Your task to perform on an android device: change your default location settings in chrome Image 0: 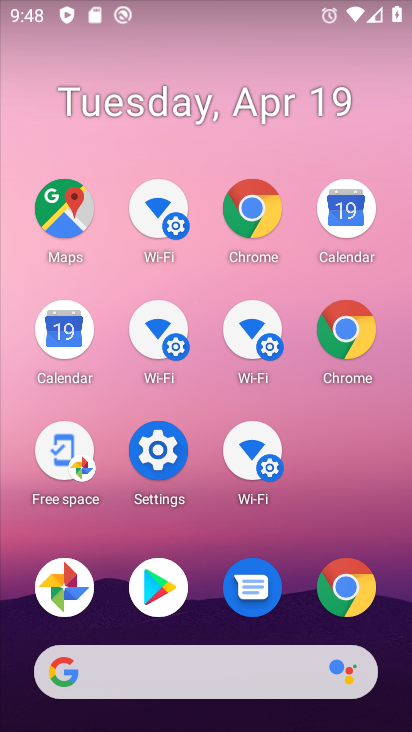
Step 0: click (348, 589)
Your task to perform on an android device: change your default location settings in chrome Image 1: 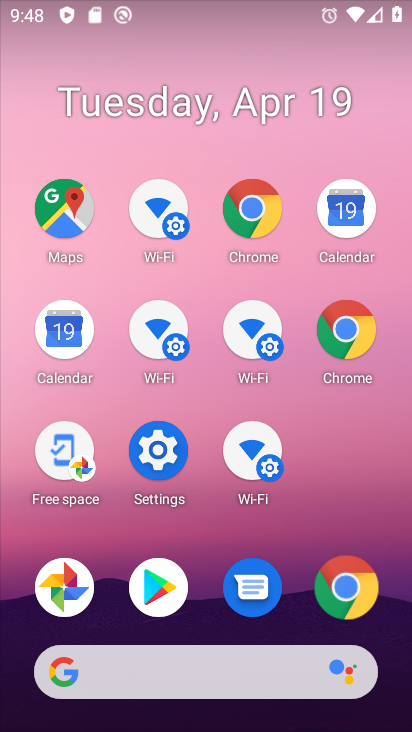
Step 1: click (348, 589)
Your task to perform on an android device: change your default location settings in chrome Image 2: 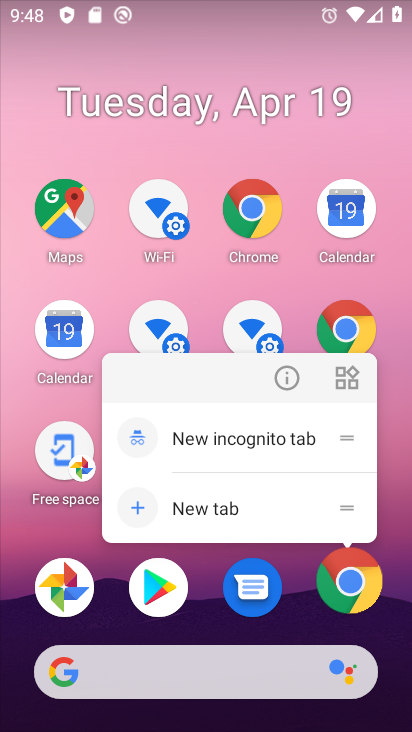
Step 2: drag from (374, 501) to (389, 458)
Your task to perform on an android device: change your default location settings in chrome Image 3: 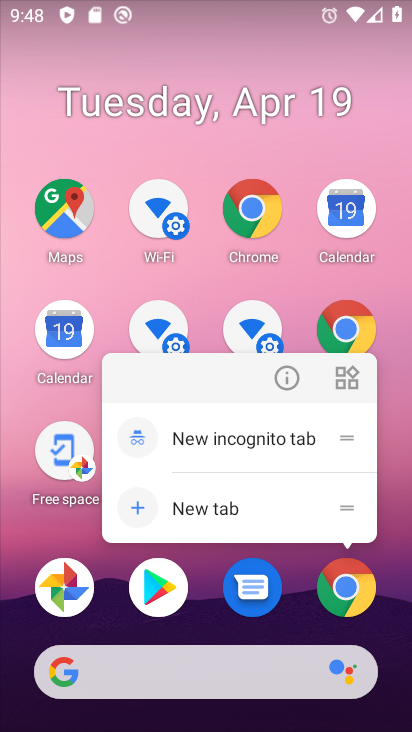
Step 3: click (390, 405)
Your task to perform on an android device: change your default location settings in chrome Image 4: 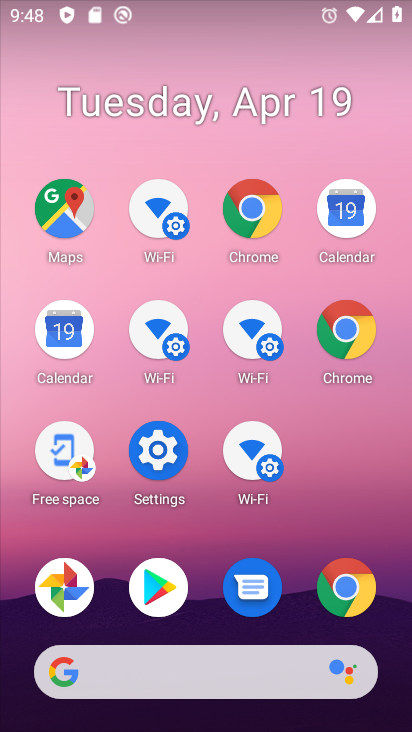
Step 4: drag from (371, 647) to (248, 211)
Your task to perform on an android device: change your default location settings in chrome Image 5: 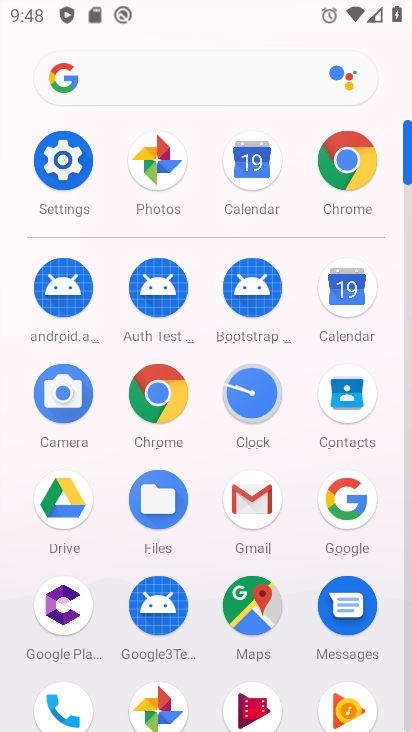
Step 5: click (352, 161)
Your task to perform on an android device: change your default location settings in chrome Image 6: 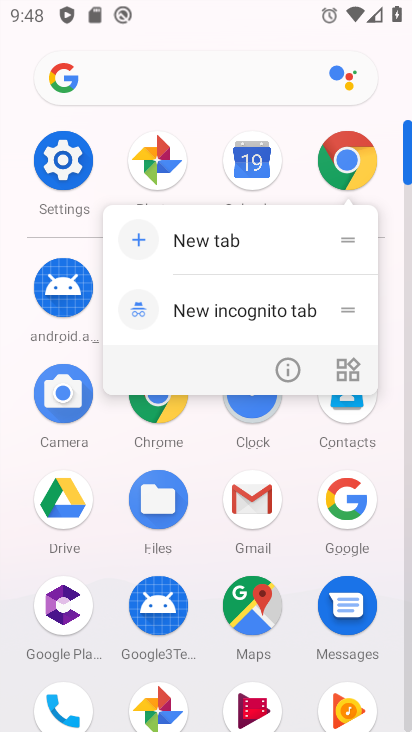
Step 6: click (352, 161)
Your task to perform on an android device: change your default location settings in chrome Image 7: 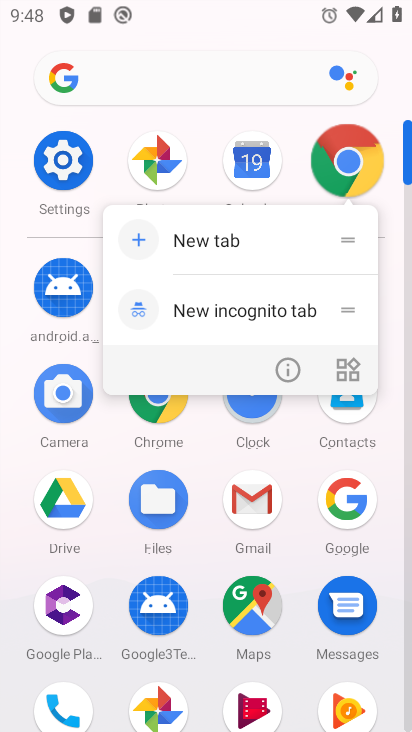
Step 7: click (352, 161)
Your task to perform on an android device: change your default location settings in chrome Image 8: 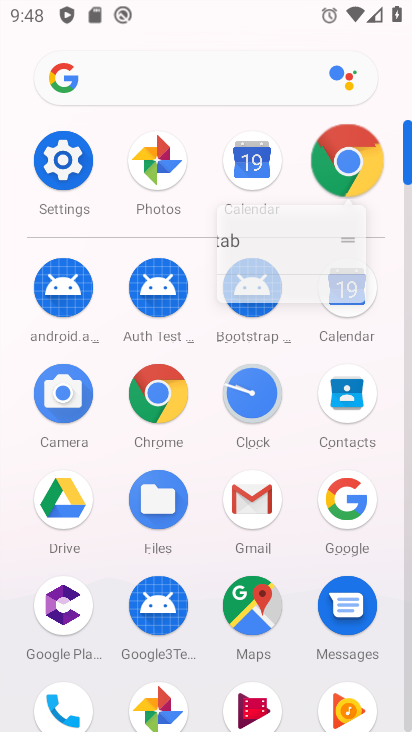
Step 8: click (352, 161)
Your task to perform on an android device: change your default location settings in chrome Image 9: 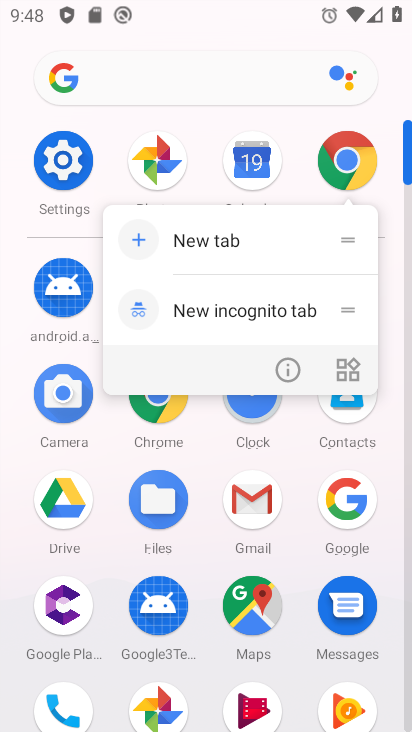
Step 9: click (352, 161)
Your task to perform on an android device: change your default location settings in chrome Image 10: 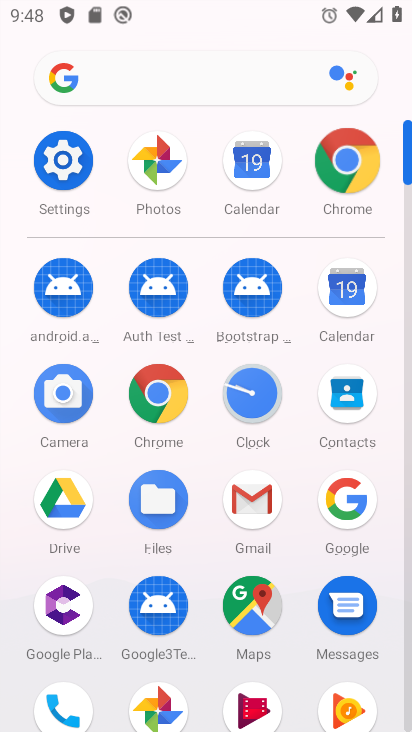
Step 10: click (352, 161)
Your task to perform on an android device: change your default location settings in chrome Image 11: 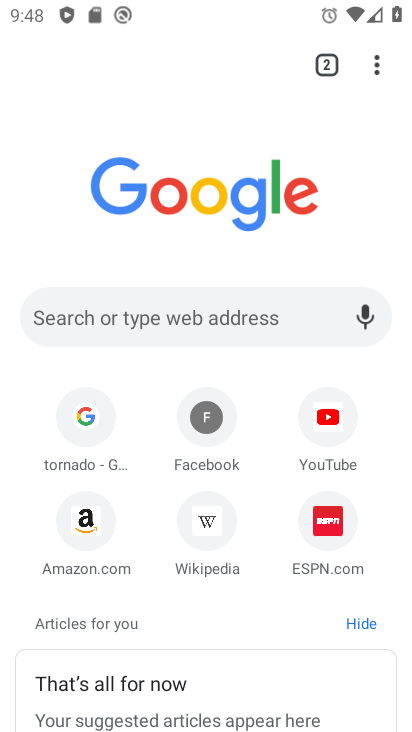
Step 11: click (372, 64)
Your task to perform on an android device: change your default location settings in chrome Image 12: 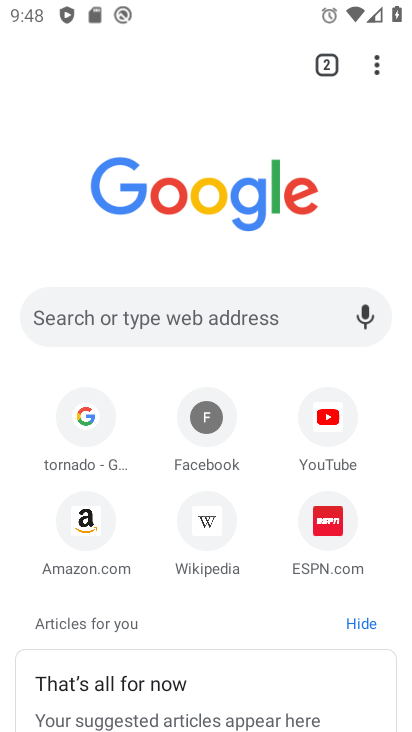
Step 12: click (376, 59)
Your task to perform on an android device: change your default location settings in chrome Image 13: 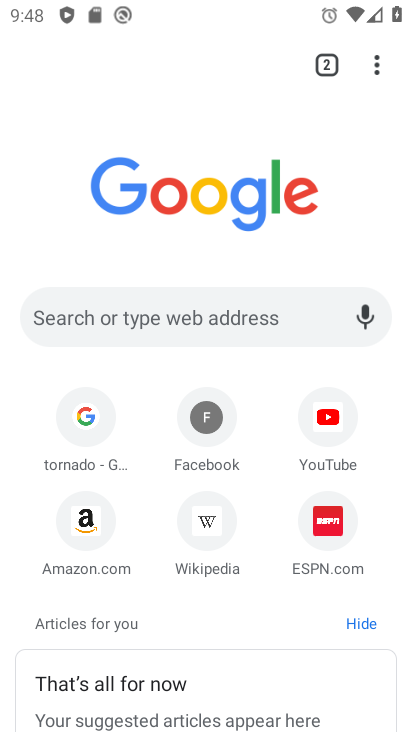
Step 13: click (382, 57)
Your task to perform on an android device: change your default location settings in chrome Image 14: 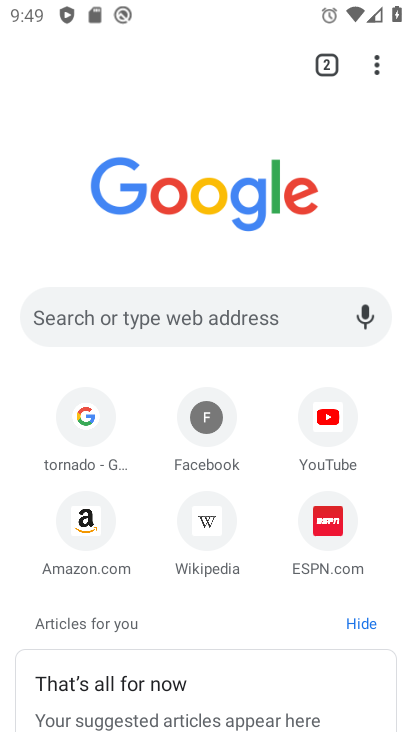
Step 14: drag from (377, 61) to (140, 632)
Your task to perform on an android device: change your default location settings in chrome Image 15: 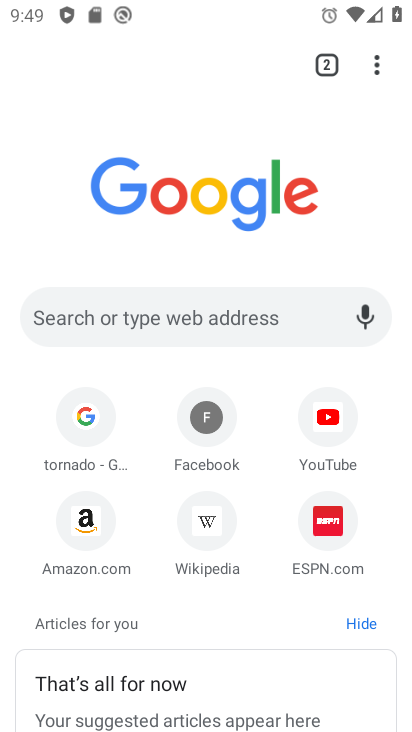
Step 15: click (139, 603)
Your task to perform on an android device: change your default location settings in chrome Image 16: 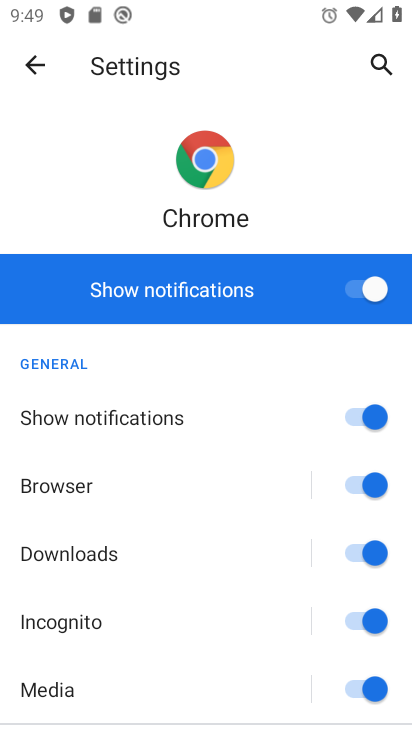
Step 16: click (36, 62)
Your task to perform on an android device: change your default location settings in chrome Image 17: 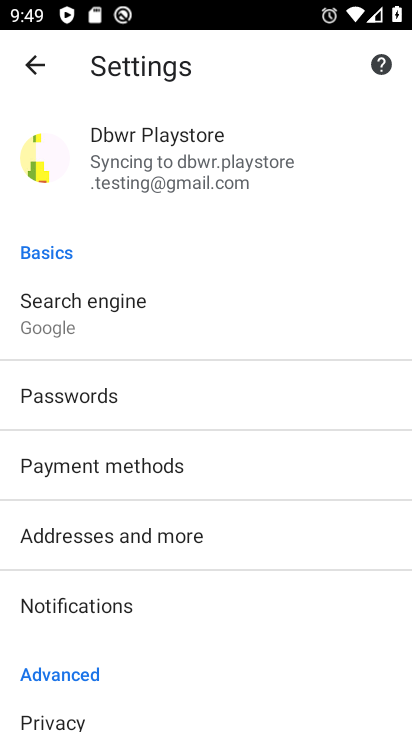
Step 17: click (158, 245)
Your task to perform on an android device: change your default location settings in chrome Image 18: 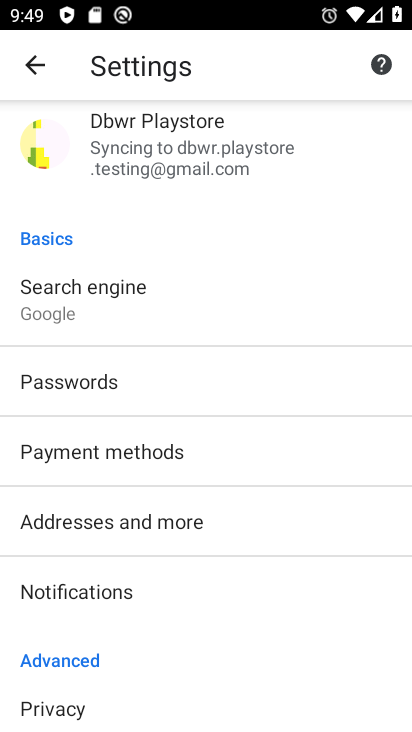
Step 18: drag from (109, 498) to (195, 174)
Your task to perform on an android device: change your default location settings in chrome Image 19: 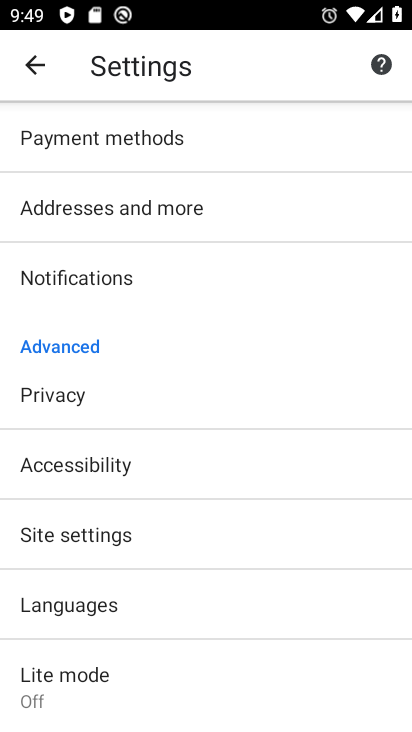
Step 19: click (61, 526)
Your task to perform on an android device: change your default location settings in chrome Image 20: 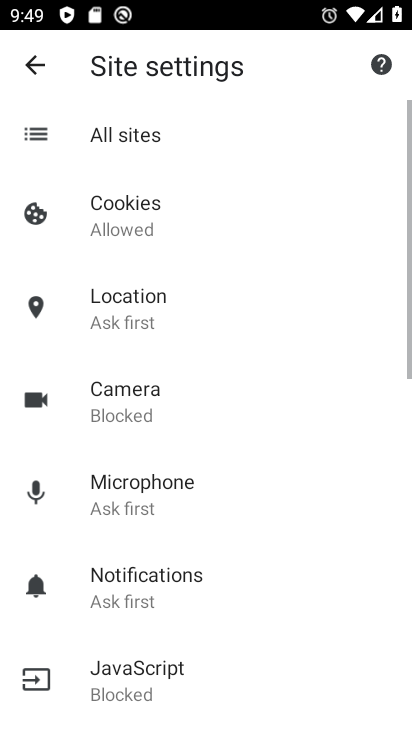
Step 20: click (96, 315)
Your task to perform on an android device: change your default location settings in chrome Image 21: 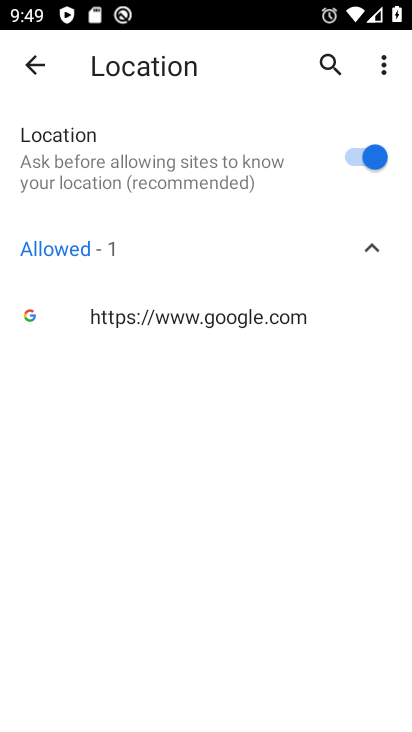
Step 21: click (365, 160)
Your task to perform on an android device: change your default location settings in chrome Image 22: 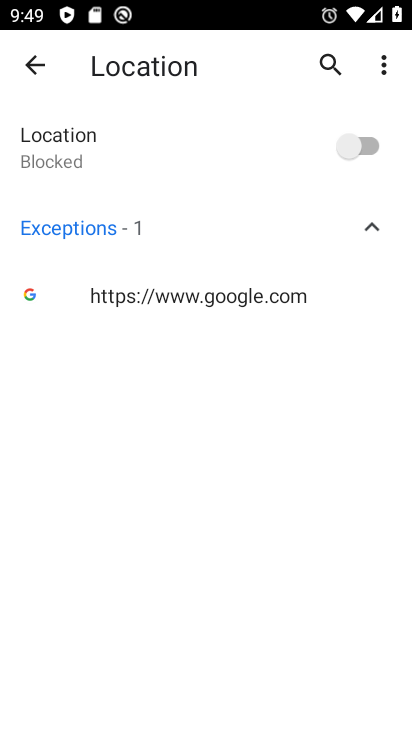
Step 22: press home button
Your task to perform on an android device: change your default location settings in chrome Image 23: 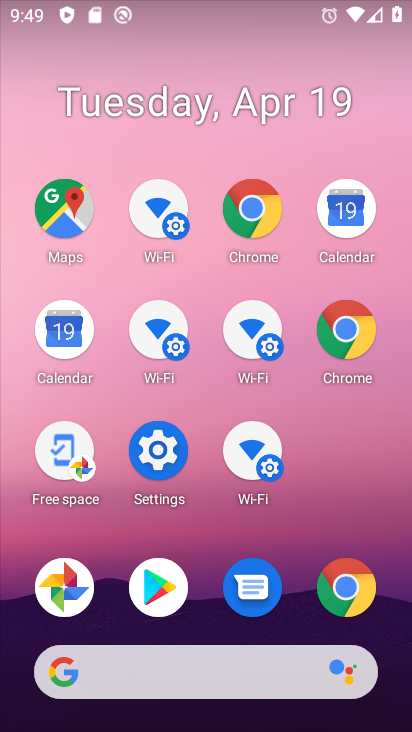
Step 23: click (345, 589)
Your task to perform on an android device: change your default location settings in chrome Image 24: 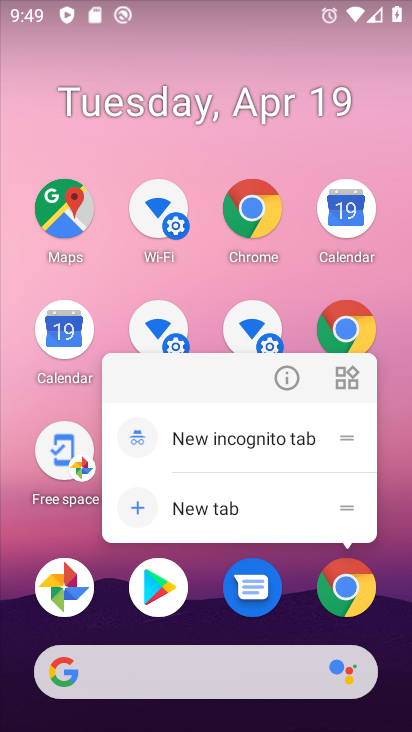
Step 24: click (345, 589)
Your task to perform on an android device: change your default location settings in chrome Image 25: 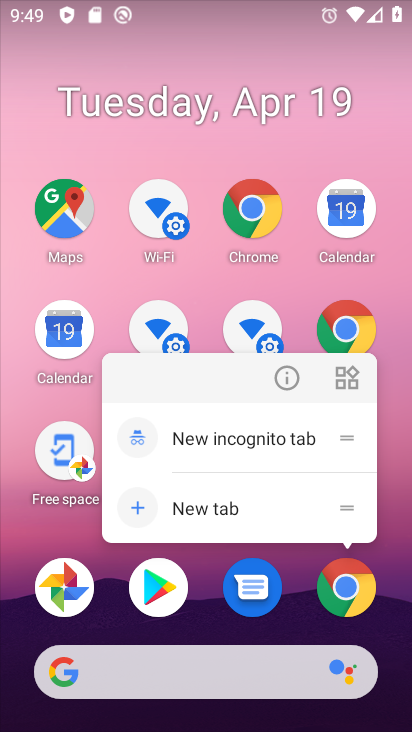
Step 25: click (348, 567)
Your task to perform on an android device: change your default location settings in chrome Image 26: 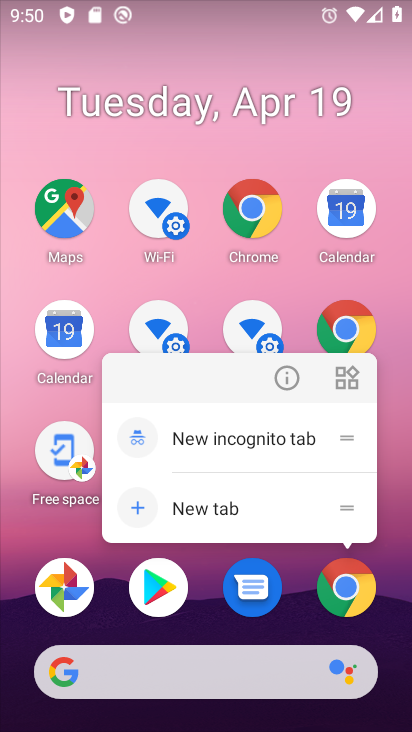
Step 26: click (351, 572)
Your task to perform on an android device: change your default location settings in chrome Image 27: 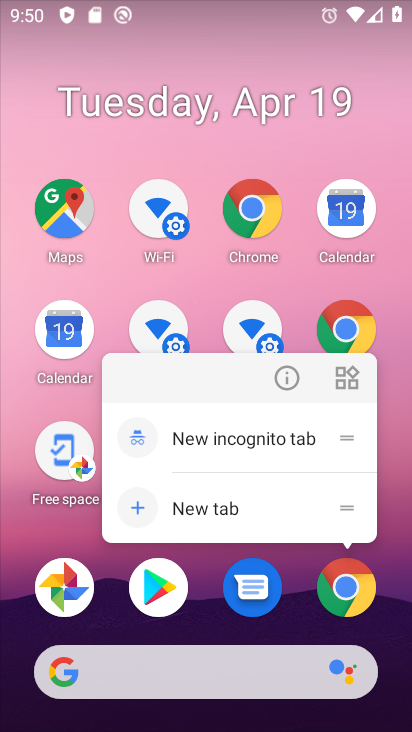
Step 27: click (355, 577)
Your task to perform on an android device: change your default location settings in chrome Image 28: 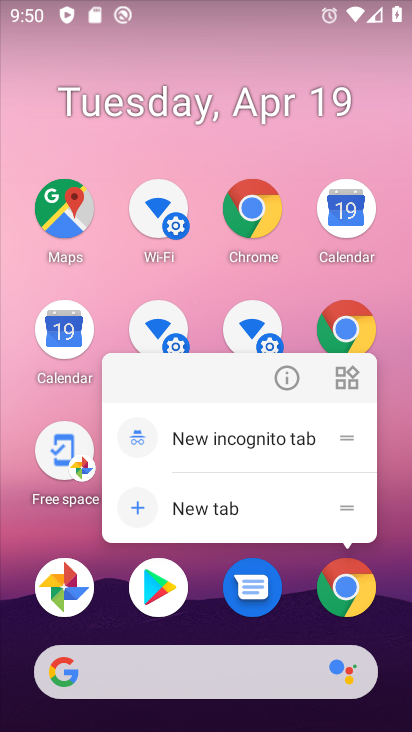
Step 28: click (351, 576)
Your task to perform on an android device: change your default location settings in chrome Image 29: 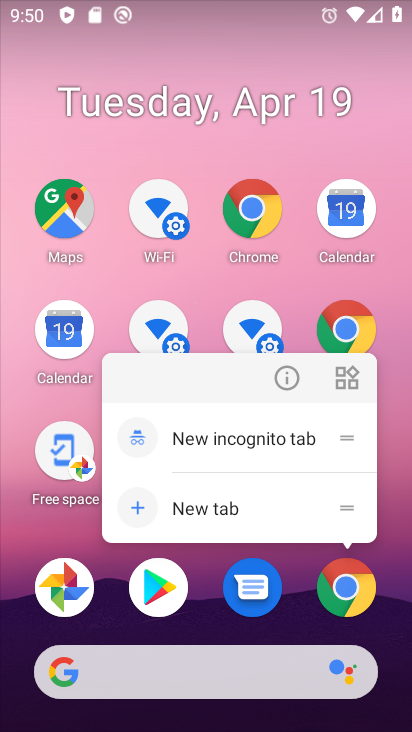
Step 29: click (332, 592)
Your task to perform on an android device: change your default location settings in chrome Image 30: 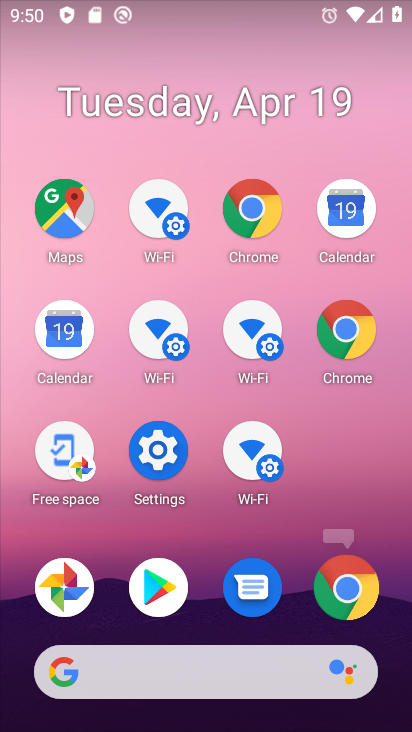
Step 30: click (336, 585)
Your task to perform on an android device: change your default location settings in chrome Image 31: 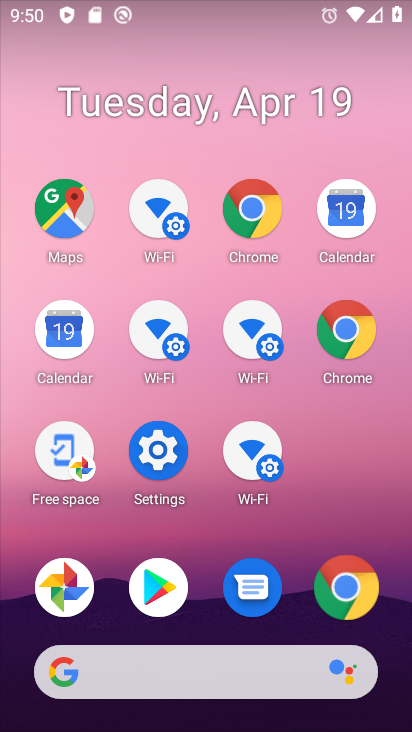
Step 31: click (336, 583)
Your task to perform on an android device: change your default location settings in chrome Image 32: 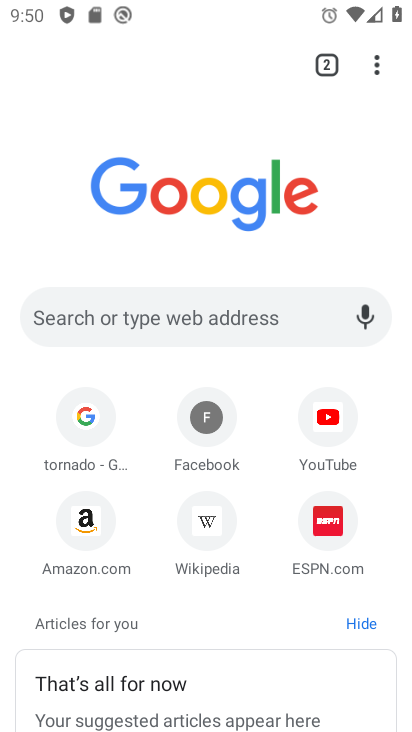
Step 32: drag from (372, 59) to (143, 622)
Your task to perform on an android device: change your default location settings in chrome Image 33: 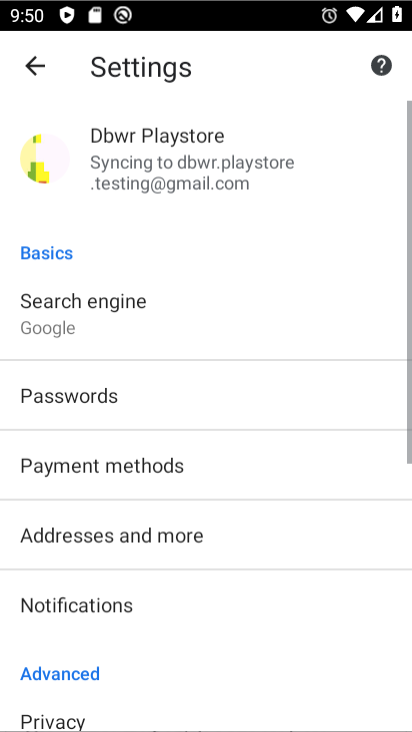
Step 33: click (144, 620)
Your task to perform on an android device: change your default location settings in chrome Image 34: 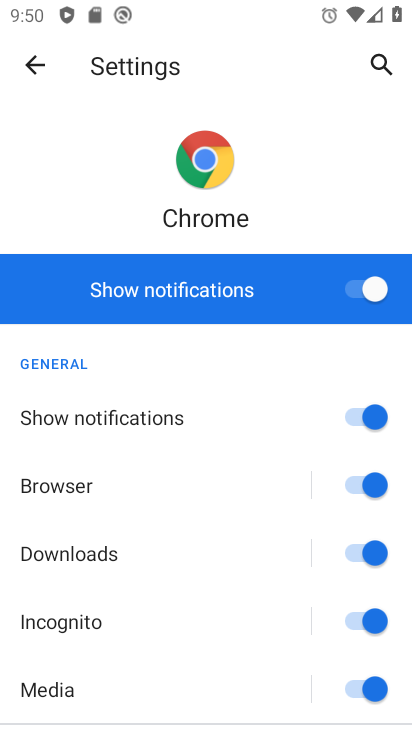
Step 34: click (21, 71)
Your task to perform on an android device: change your default location settings in chrome Image 35: 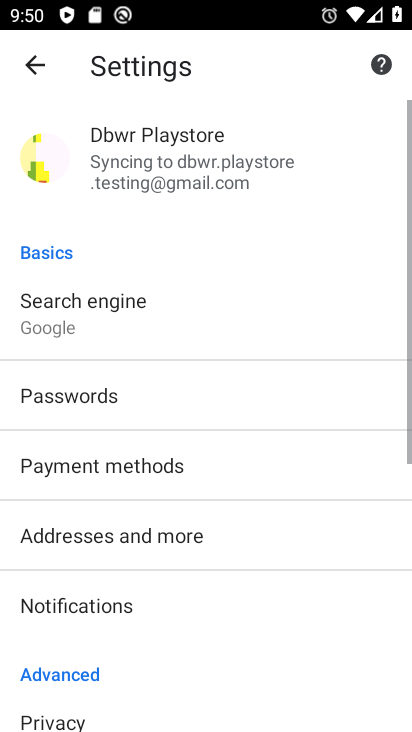
Step 35: drag from (103, 521) to (120, 167)
Your task to perform on an android device: change your default location settings in chrome Image 36: 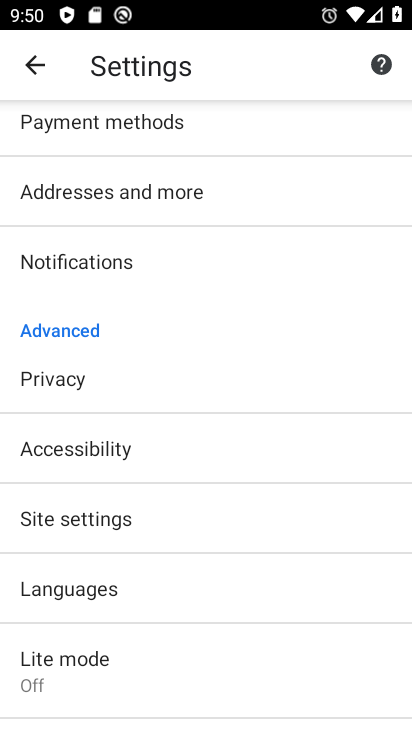
Step 36: click (73, 521)
Your task to perform on an android device: change your default location settings in chrome Image 37: 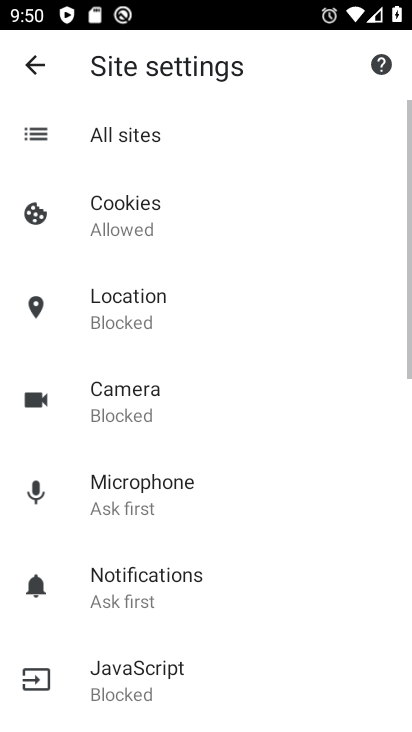
Step 37: click (121, 315)
Your task to perform on an android device: change your default location settings in chrome Image 38: 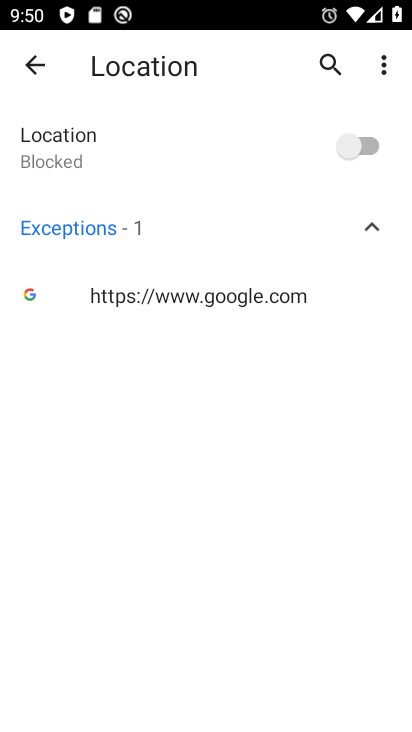
Step 38: click (339, 148)
Your task to perform on an android device: change your default location settings in chrome Image 39: 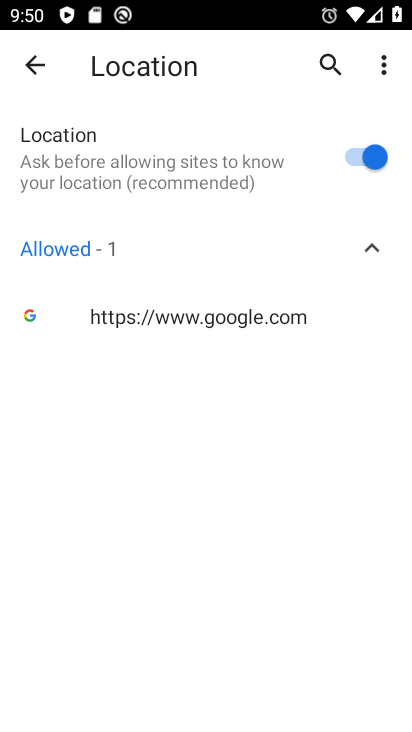
Step 39: task complete